Your task to perform on an android device: allow cookies in the chrome app Image 0: 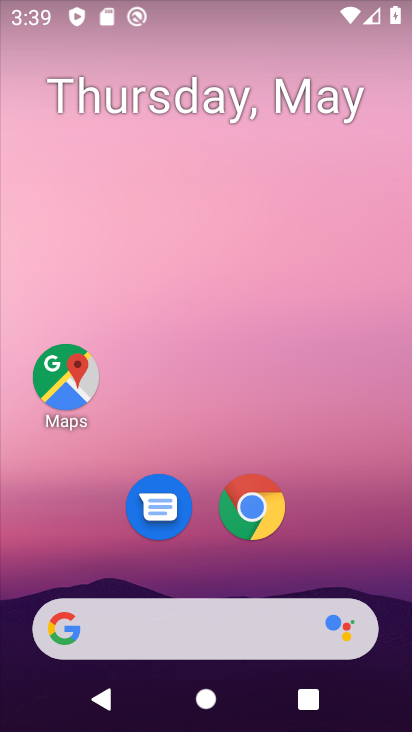
Step 0: click (244, 507)
Your task to perform on an android device: allow cookies in the chrome app Image 1: 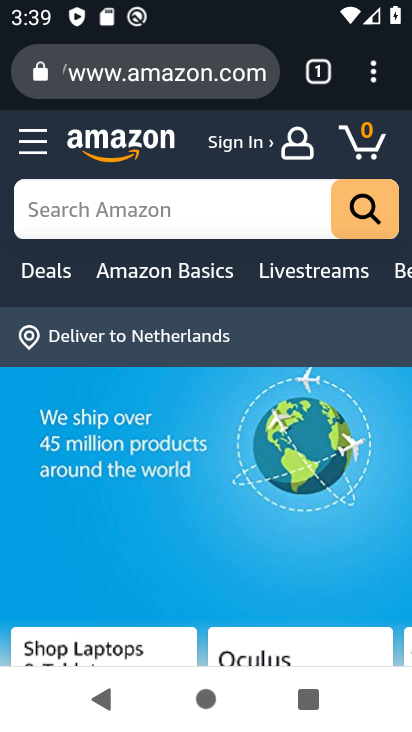
Step 1: click (368, 68)
Your task to perform on an android device: allow cookies in the chrome app Image 2: 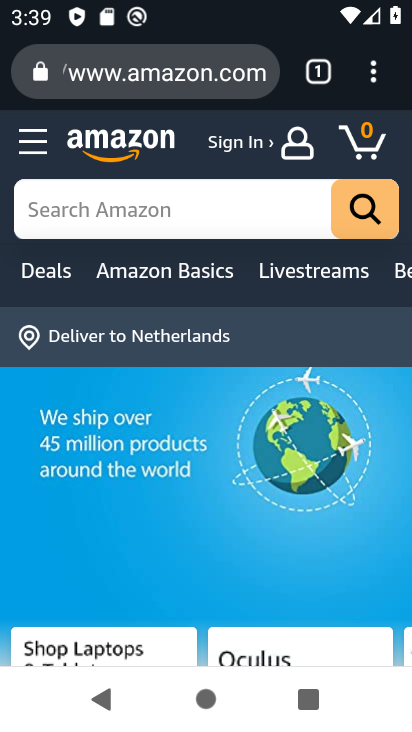
Step 2: click (371, 76)
Your task to perform on an android device: allow cookies in the chrome app Image 3: 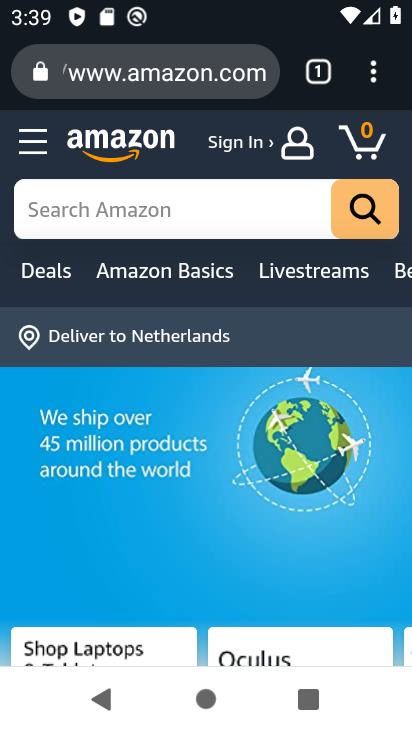
Step 3: click (374, 78)
Your task to perform on an android device: allow cookies in the chrome app Image 4: 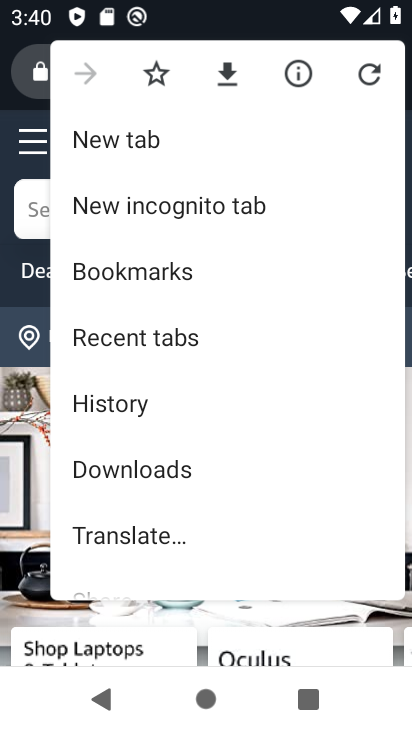
Step 4: drag from (181, 523) to (170, 251)
Your task to perform on an android device: allow cookies in the chrome app Image 5: 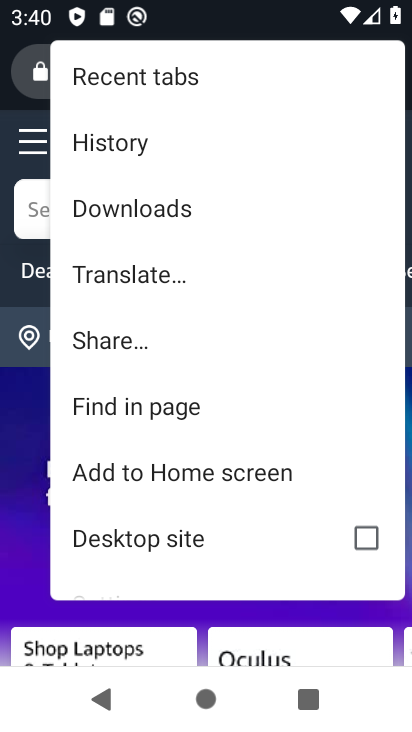
Step 5: drag from (147, 535) to (128, 275)
Your task to perform on an android device: allow cookies in the chrome app Image 6: 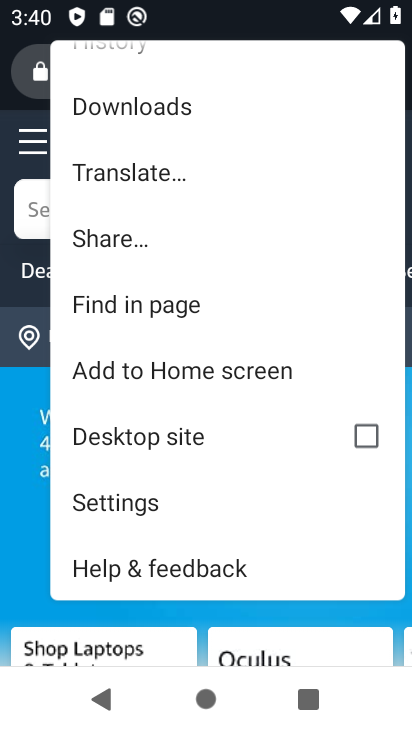
Step 6: click (136, 506)
Your task to perform on an android device: allow cookies in the chrome app Image 7: 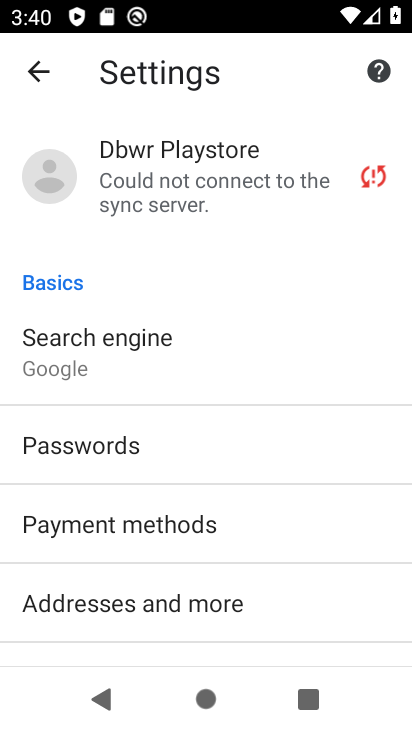
Step 7: drag from (194, 598) to (174, 297)
Your task to perform on an android device: allow cookies in the chrome app Image 8: 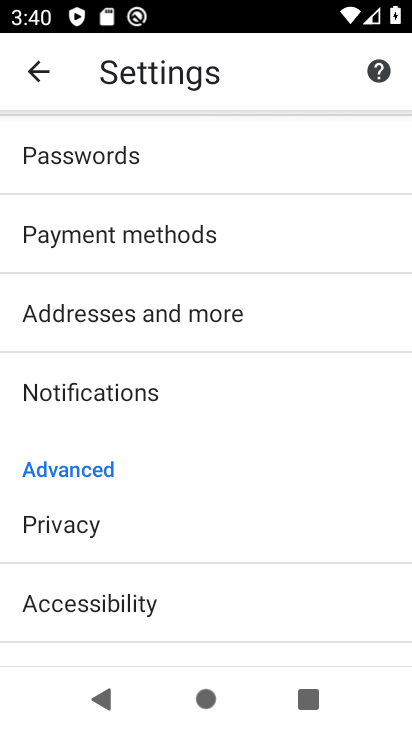
Step 8: drag from (135, 555) to (85, 270)
Your task to perform on an android device: allow cookies in the chrome app Image 9: 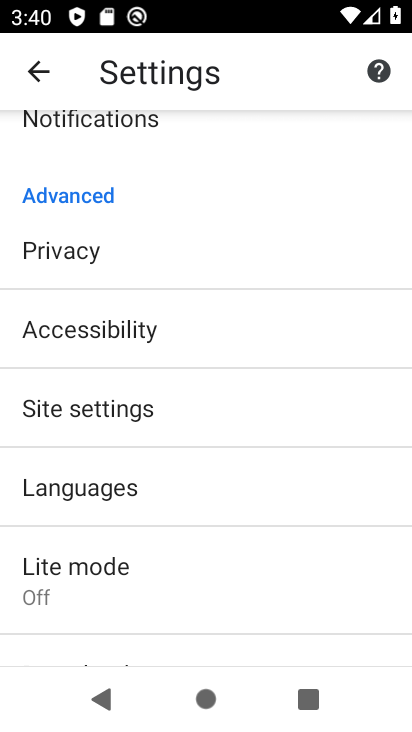
Step 9: click (108, 414)
Your task to perform on an android device: allow cookies in the chrome app Image 10: 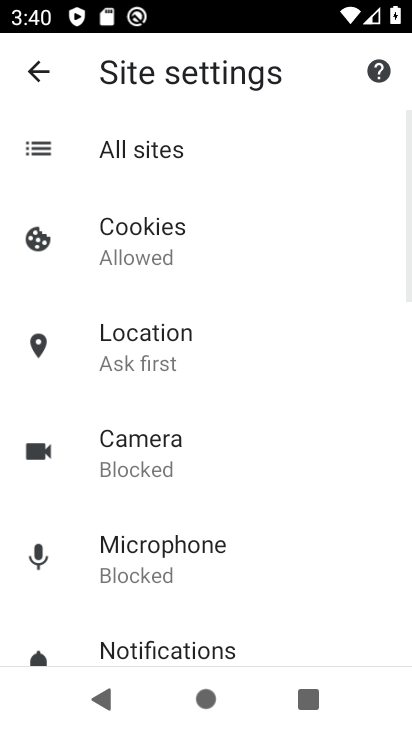
Step 10: click (153, 264)
Your task to perform on an android device: allow cookies in the chrome app Image 11: 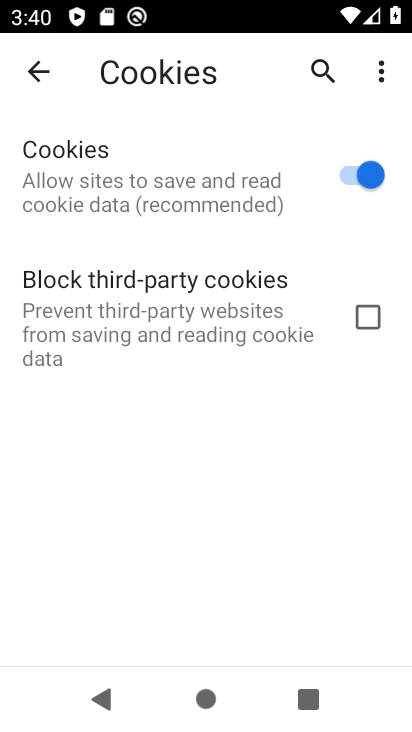
Step 11: task complete